Your task to perform on an android device: Add apple airpods pro to the cart on costco.com Image 0: 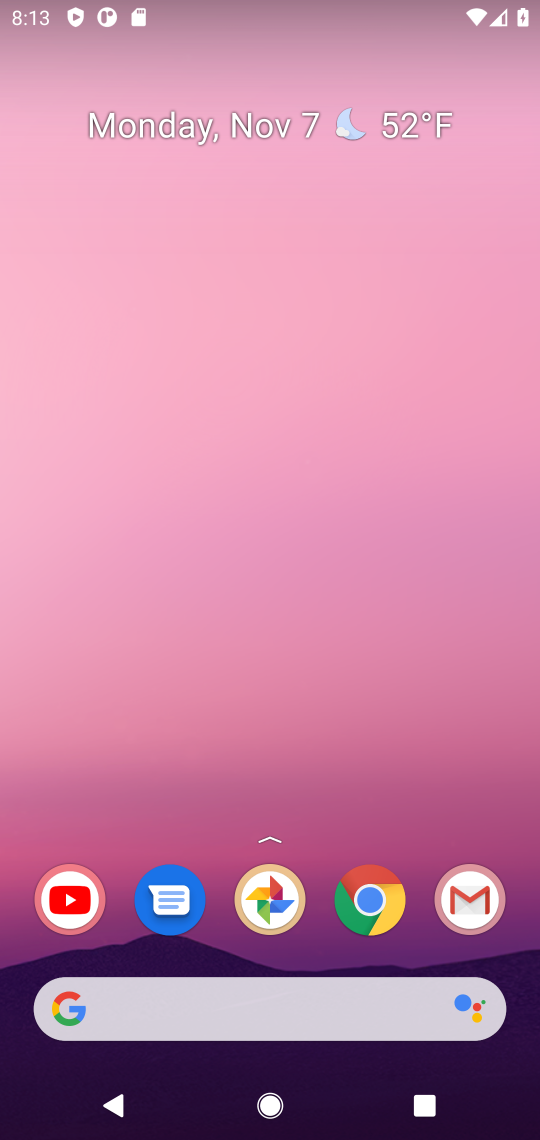
Step 0: task complete